Your task to perform on an android device: find which apps use the phone's location Image 0: 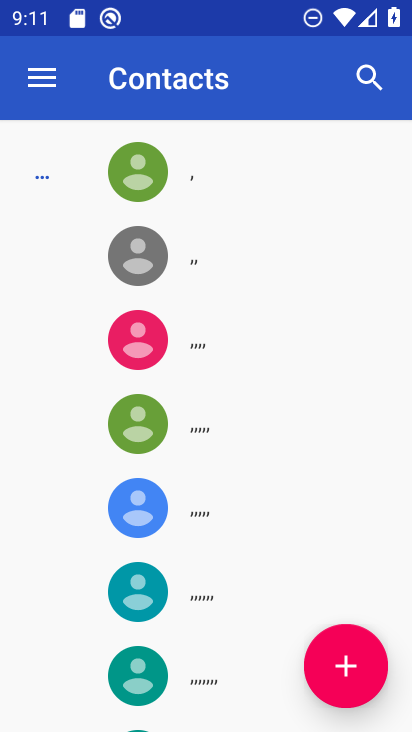
Step 0: press home button
Your task to perform on an android device: find which apps use the phone's location Image 1: 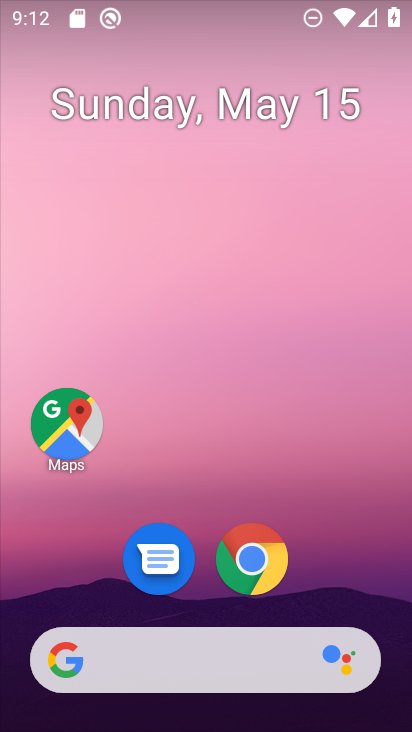
Step 1: drag from (337, 584) to (320, 79)
Your task to perform on an android device: find which apps use the phone's location Image 2: 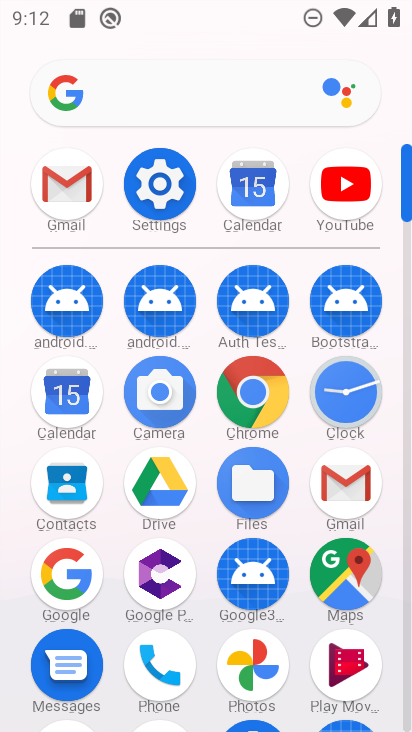
Step 2: click (153, 171)
Your task to perform on an android device: find which apps use the phone's location Image 3: 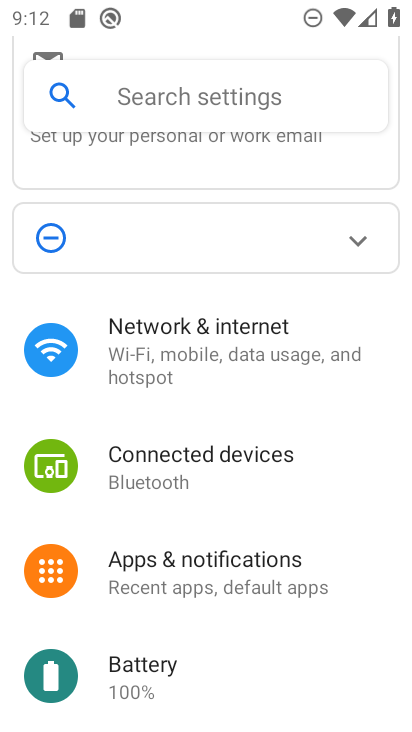
Step 3: drag from (123, 678) to (249, 304)
Your task to perform on an android device: find which apps use the phone's location Image 4: 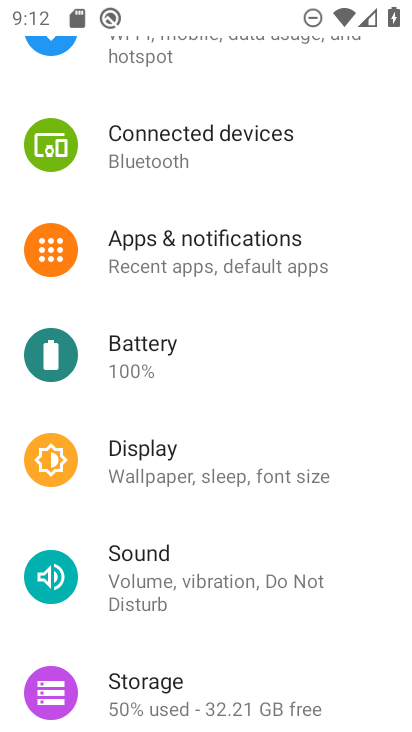
Step 4: drag from (234, 670) to (301, 359)
Your task to perform on an android device: find which apps use the phone's location Image 5: 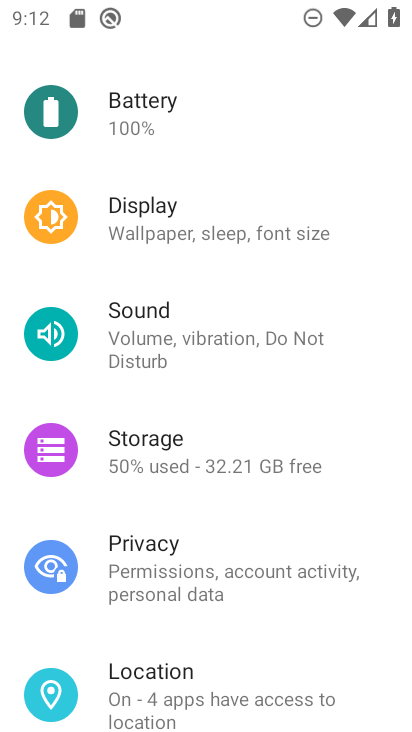
Step 5: click (213, 677)
Your task to perform on an android device: find which apps use the phone's location Image 6: 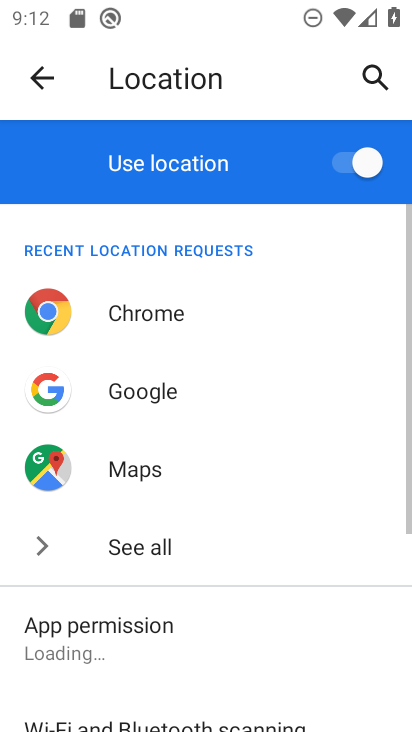
Step 6: click (219, 636)
Your task to perform on an android device: find which apps use the phone's location Image 7: 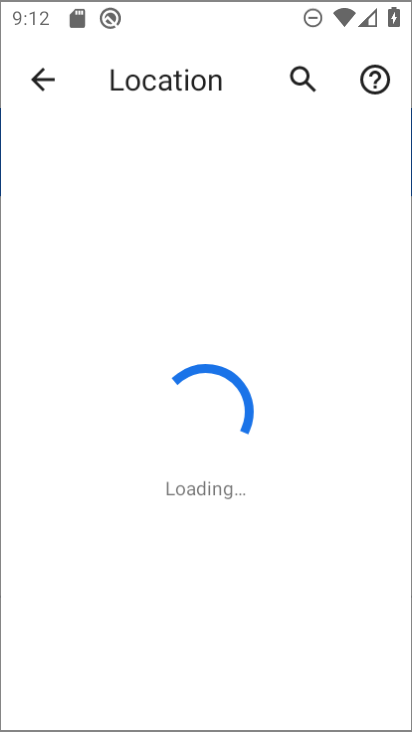
Step 7: task complete